Your task to perform on an android device: Open Chrome and go to the settings page Image 0: 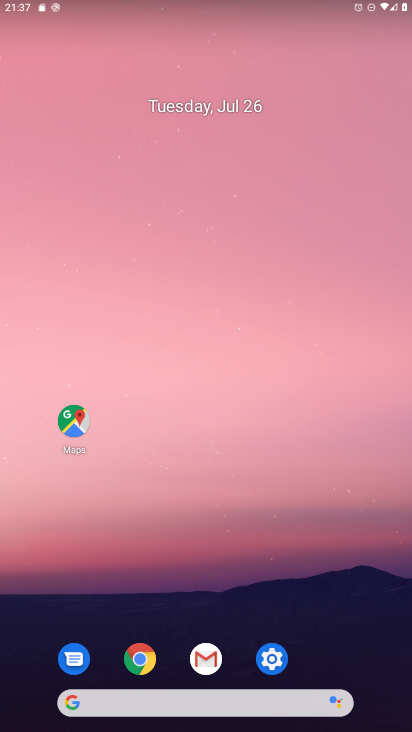
Step 0: click (141, 665)
Your task to perform on an android device: Open Chrome and go to the settings page Image 1: 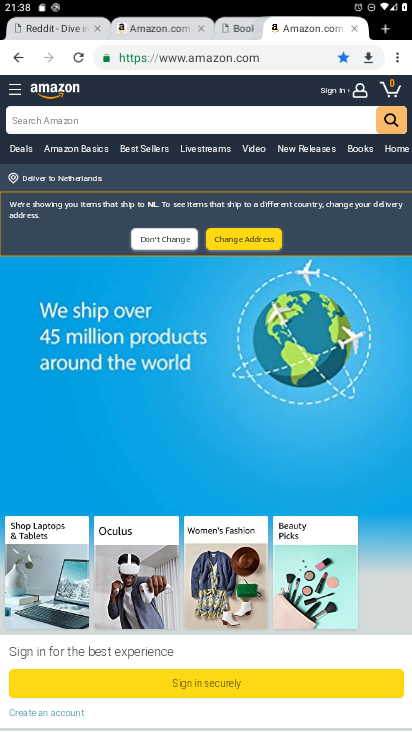
Step 1: click (396, 64)
Your task to perform on an android device: Open Chrome and go to the settings page Image 2: 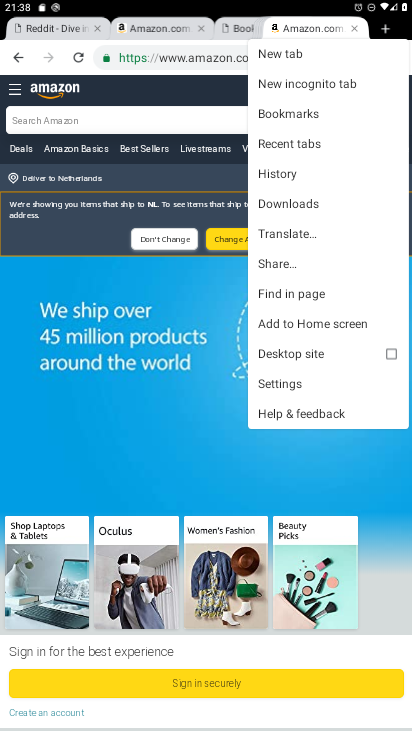
Step 2: click (279, 379)
Your task to perform on an android device: Open Chrome and go to the settings page Image 3: 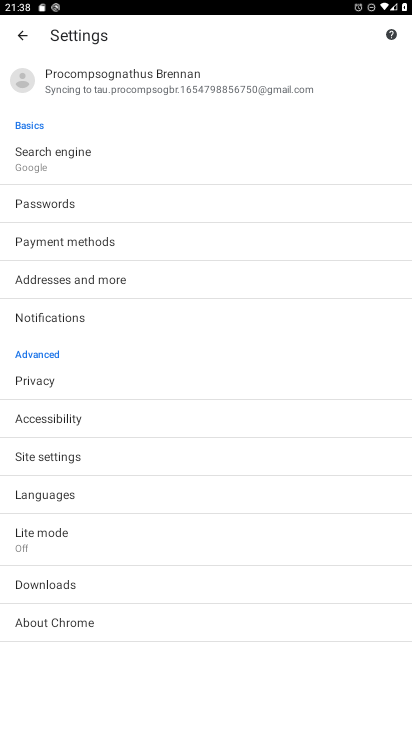
Step 3: task complete